Your task to perform on an android device: open sync settings in chrome Image 0: 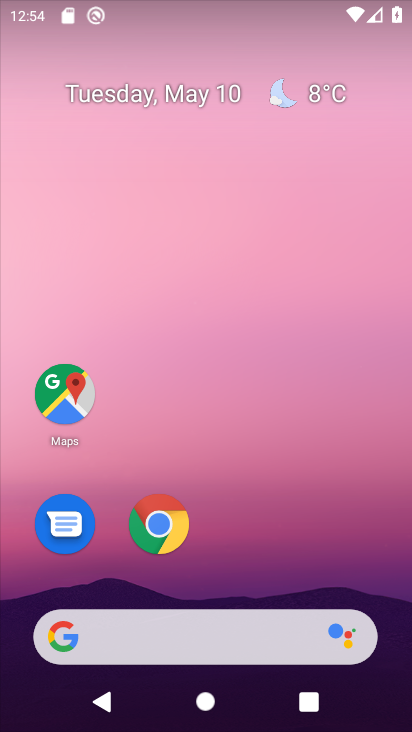
Step 0: click (161, 524)
Your task to perform on an android device: open sync settings in chrome Image 1: 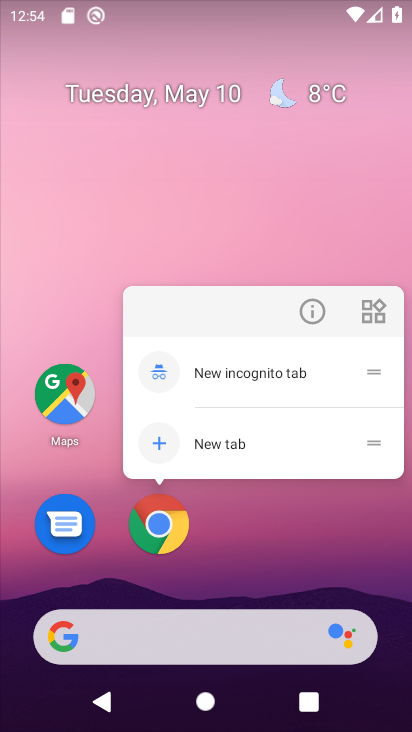
Step 1: click (161, 524)
Your task to perform on an android device: open sync settings in chrome Image 2: 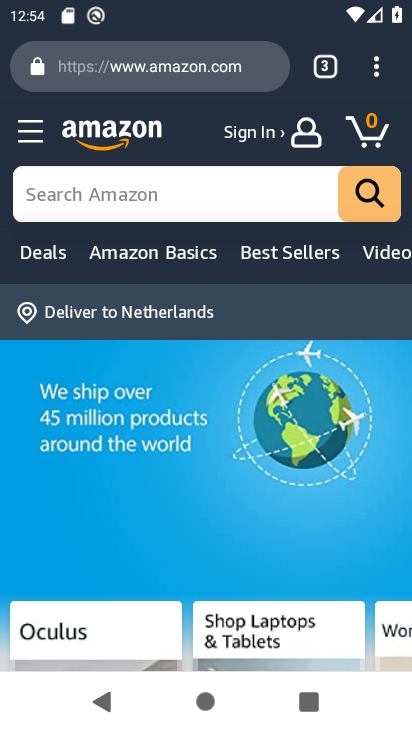
Step 2: click (375, 78)
Your task to perform on an android device: open sync settings in chrome Image 3: 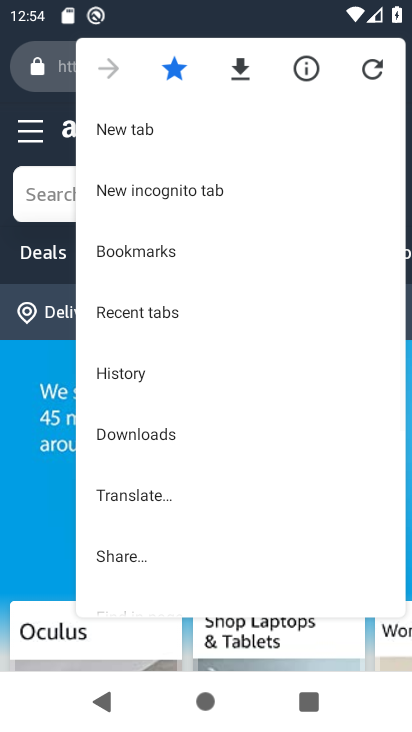
Step 3: drag from (267, 507) to (262, 267)
Your task to perform on an android device: open sync settings in chrome Image 4: 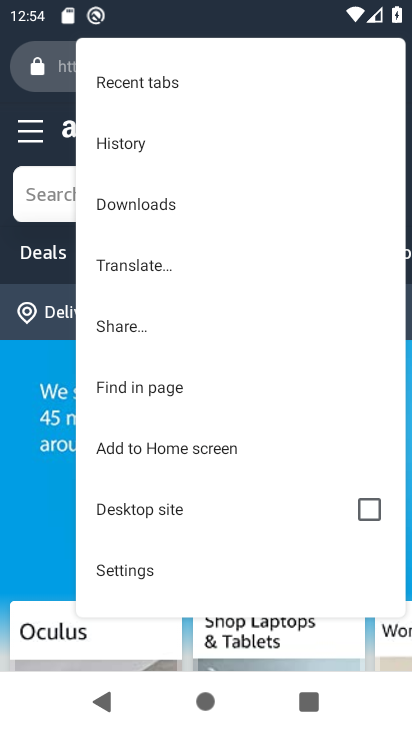
Step 4: click (154, 568)
Your task to perform on an android device: open sync settings in chrome Image 5: 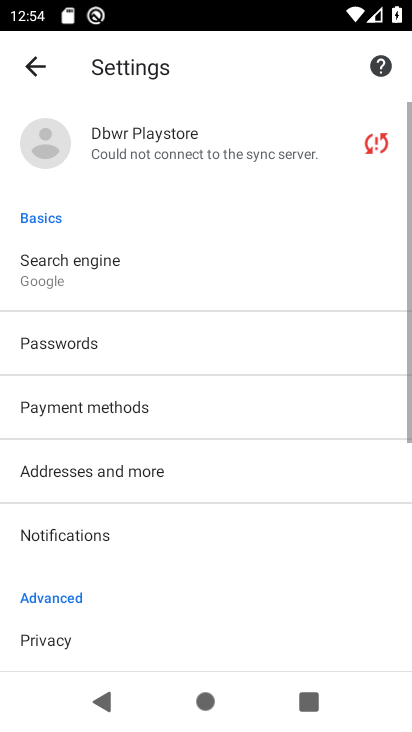
Step 5: click (274, 131)
Your task to perform on an android device: open sync settings in chrome Image 6: 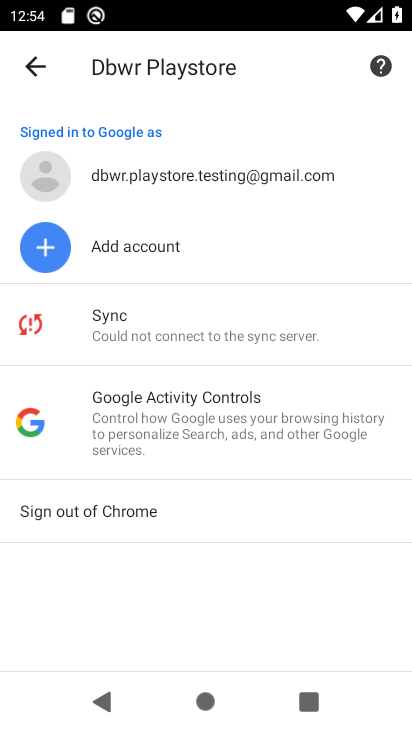
Step 6: click (206, 322)
Your task to perform on an android device: open sync settings in chrome Image 7: 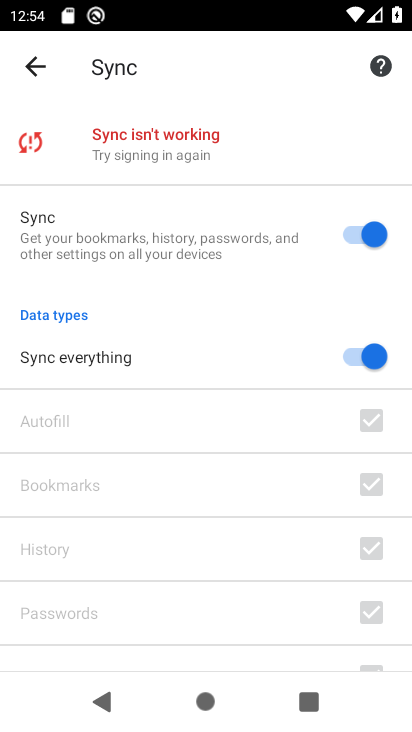
Step 7: task complete